Your task to perform on an android device: Search for seafood restaurants on Google Maps Image 0: 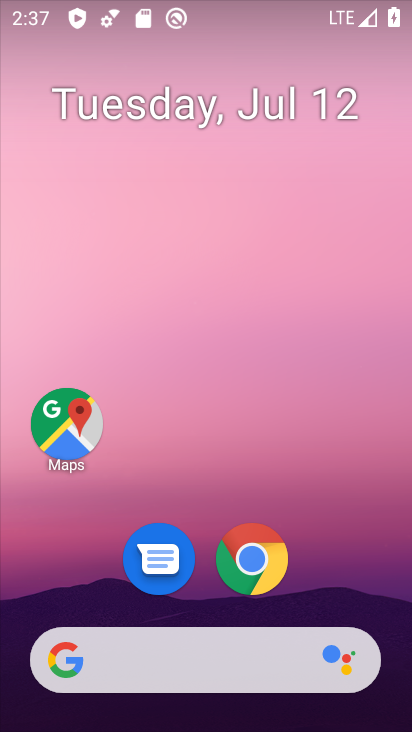
Step 0: drag from (386, 593) to (377, 273)
Your task to perform on an android device: Search for seafood restaurants on Google Maps Image 1: 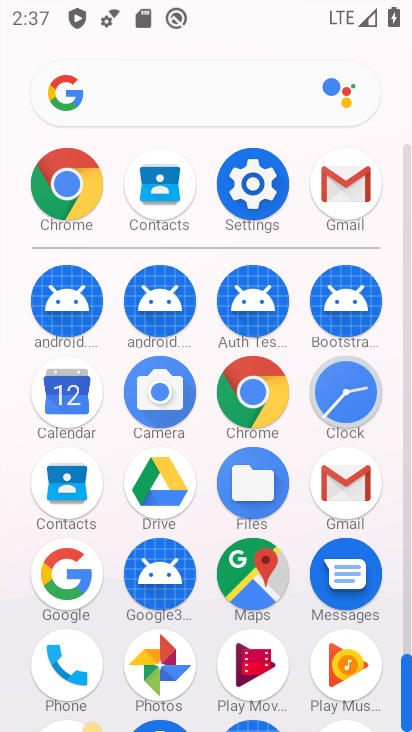
Step 1: click (258, 568)
Your task to perform on an android device: Search for seafood restaurants on Google Maps Image 2: 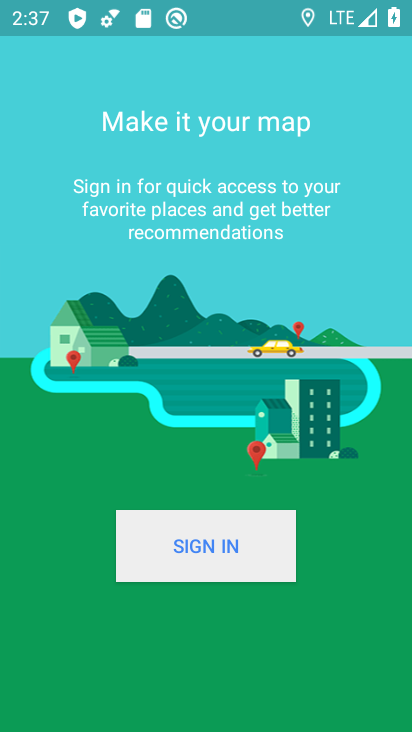
Step 2: task complete